Your task to perform on an android device: turn on the 24-hour format for clock Image 0: 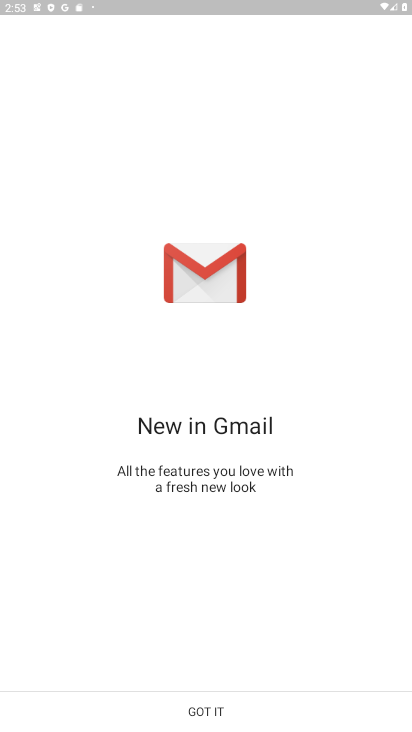
Step 0: click (286, 694)
Your task to perform on an android device: turn on the 24-hour format for clock Image 1: 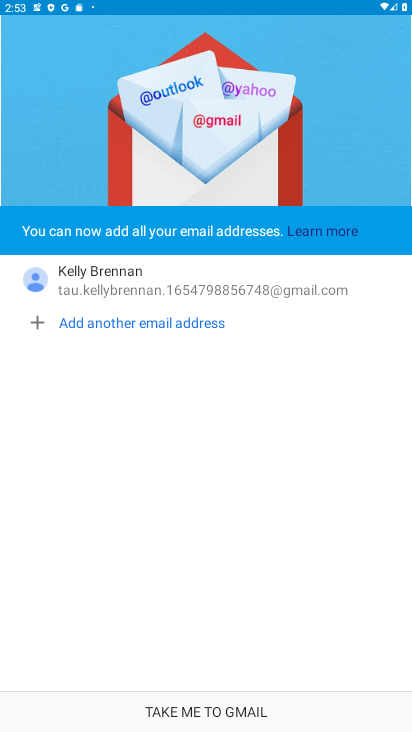
Step 1: click (286, 694)
Your task to perform on an android device: turn on the 24-hour format for clock Image 2: 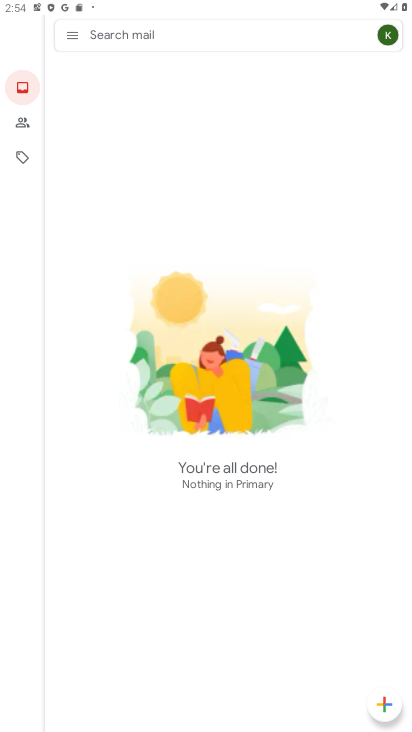
Step 2: press home button
Your task to perform on an android device: turn on the 24-hour format for clock Image 3: 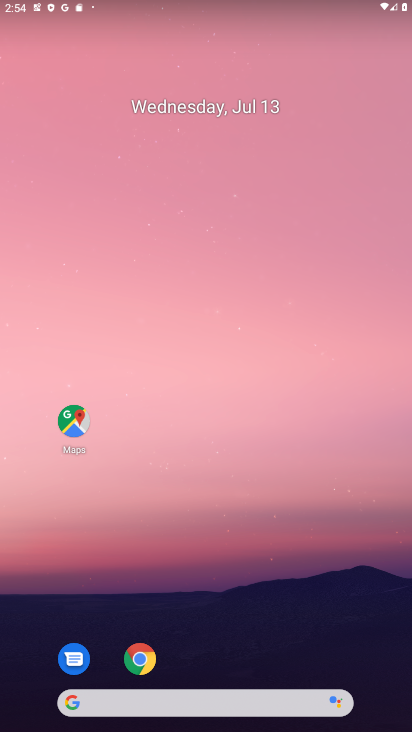
Step 3: drag from (259, 704) to (322, 33)
Your task to perform on an android device: turn on the 24-hour format for clock Image 4: 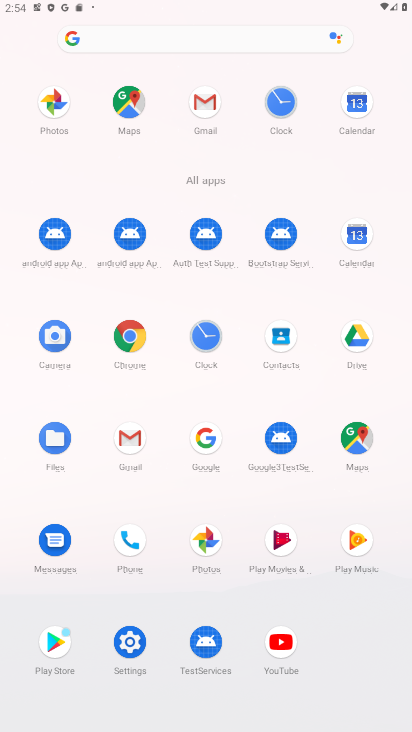
Step 4: click (288, 96)
Your task to perform on an android device: turn on the 24-hour format for clock Image 5: 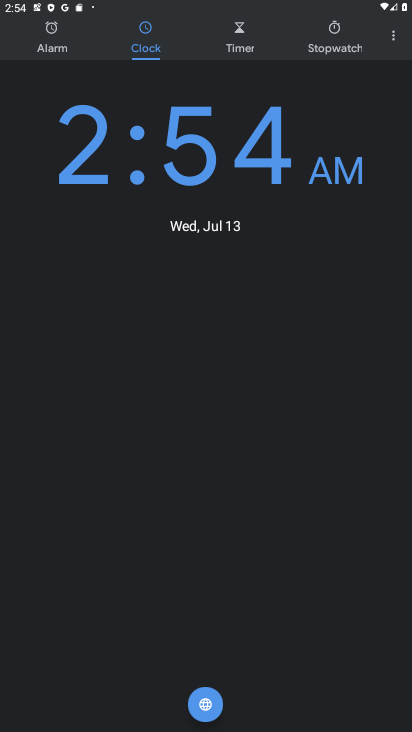
Step 5: click (399, 48)
Your task to perform on an android device: turn on the 24-hour format for clock Image 6: 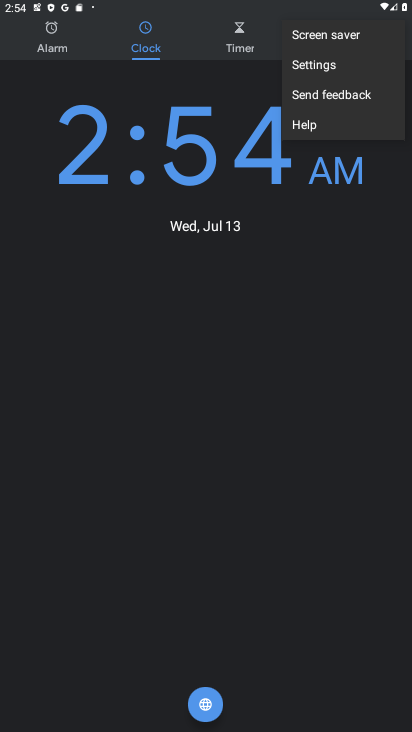
Step 6: click (339, 64)
Your task to perform on an android device: turn on the 24-hour format for clock Image 7: 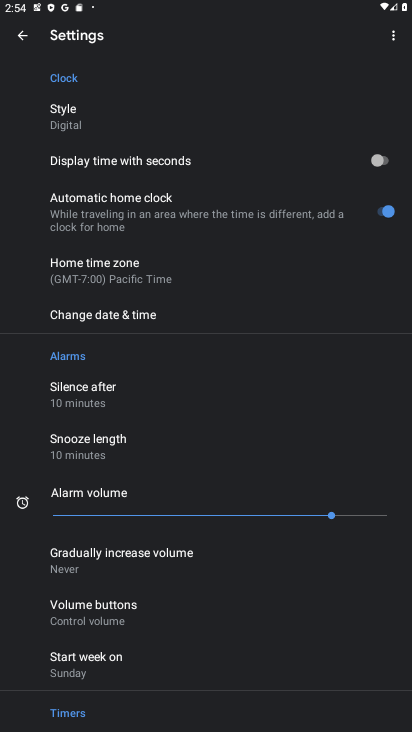
Step 7: click (197, 320)
Your task to perform on an android device: turn on the 24-hour format for clock Image 8: 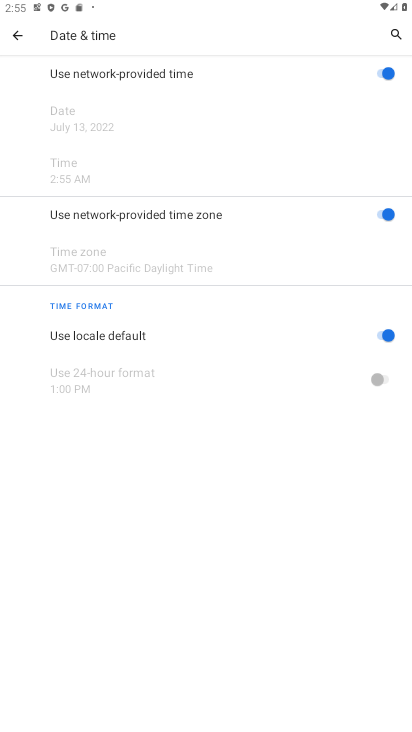
Step 8: click (378, 363)
Your task to perform on an android device: turn on the 24-hour format for clock Image 9: 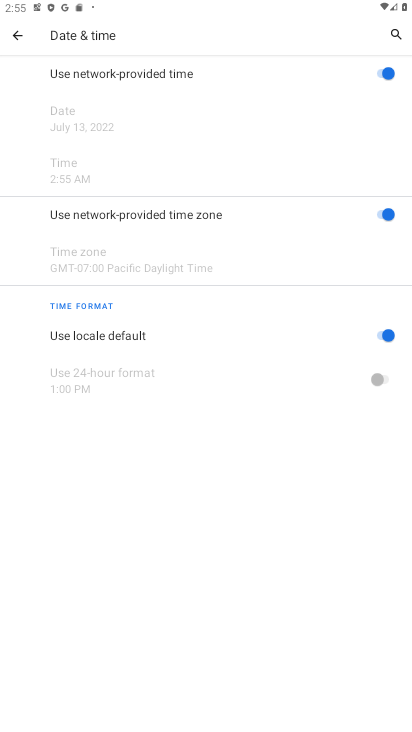
Step 9: click (384, 344)
Your task to perform on an android device: turn on the 24-hour format for clock Image 10: 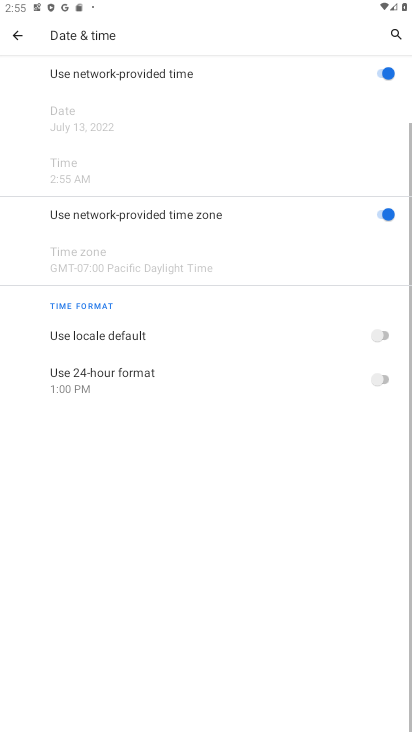
Step 10: click (376, 371)
Your task to perform on an android device: turn on the 24-hour format for clock Image 11: 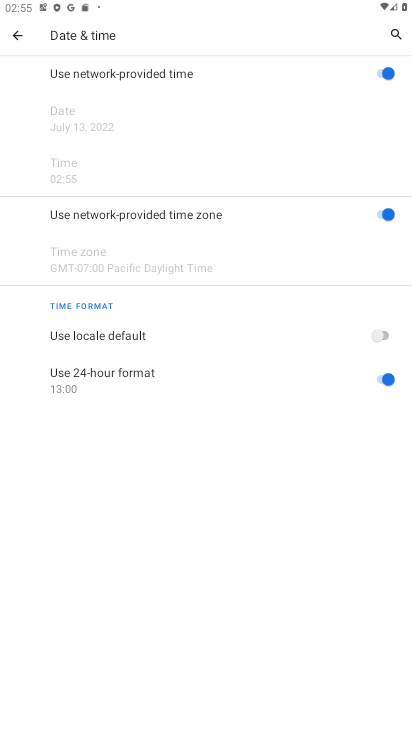
Step 11: task complete